Your task to perform on an android device: show emergency info Image 0: 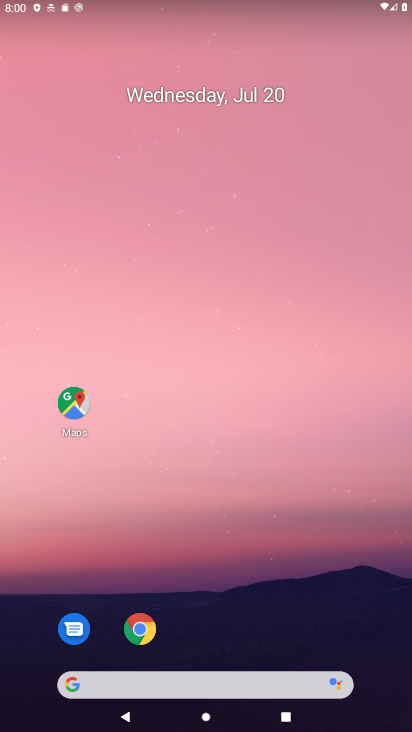
Step 0: drag from (234, 655) to (262, 156)
Your task to perform on an android device: show emergency info Image 1: 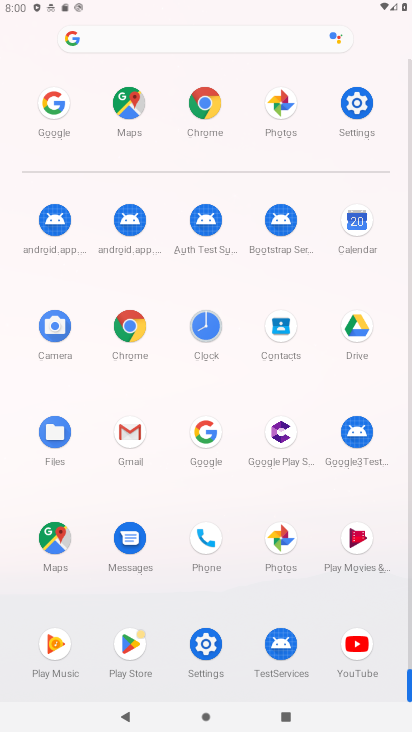
Step 1: click (348, 104)
Your task to perform on an android device: show emergency info Image 2: 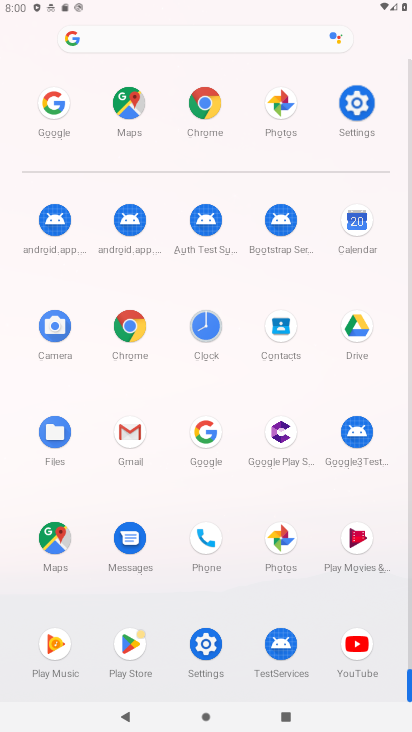
Step 2: click (356, 99)
Your task to perform on an android device: show emergency info Image 3: 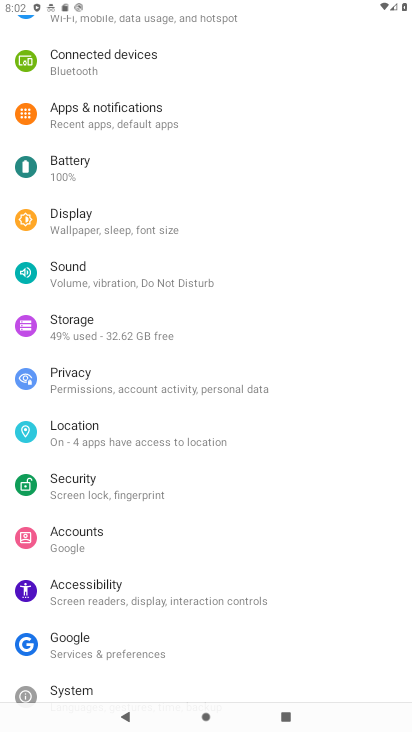
Step 3: drag from (98, 535) to (102, 219)
Your task to perform on an android device: show emergency info Image 4: 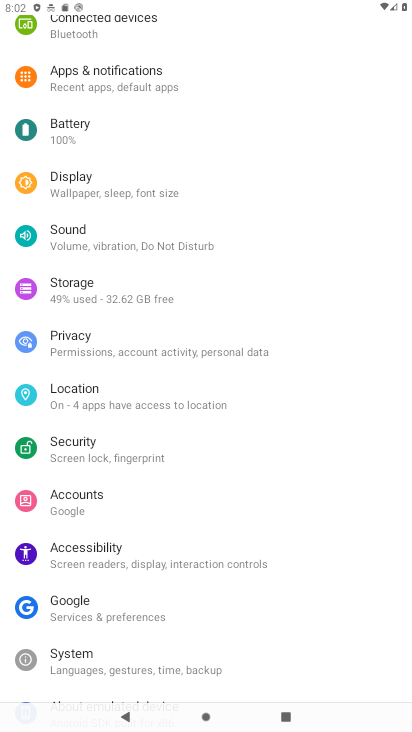
Step 4: drag from (233, 333) to (259, 158)
Your task to perform on an android device: show emergency info Image 5: 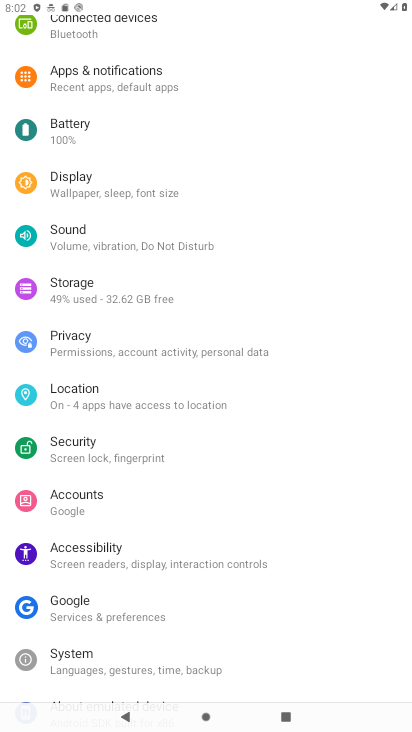
Step 5: drag from (179, 608) to (197, 315)
Your task to perform on an android device: show emergency info Image 6: 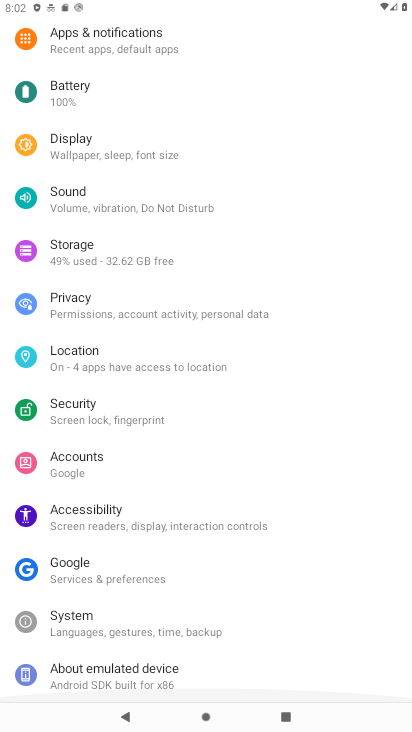
Step 6: drag from (148, 538) to (148, 98)
Your task to perform on an android device: show emergency info Image 7: 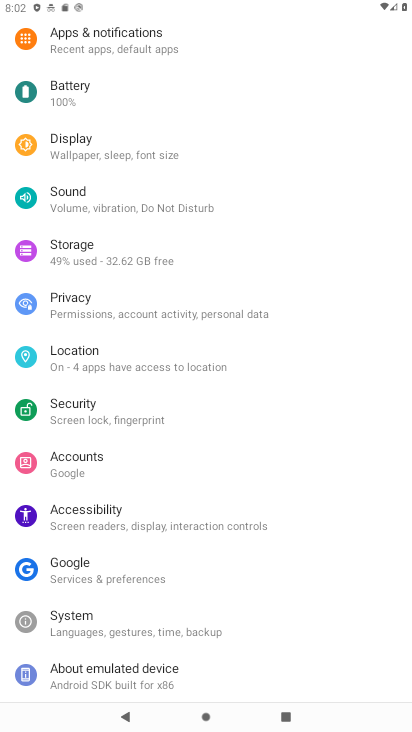
Step 7: drag from (185, 616) to (190, 217)
Your task to perform on an android device: show emergency info Image 8: 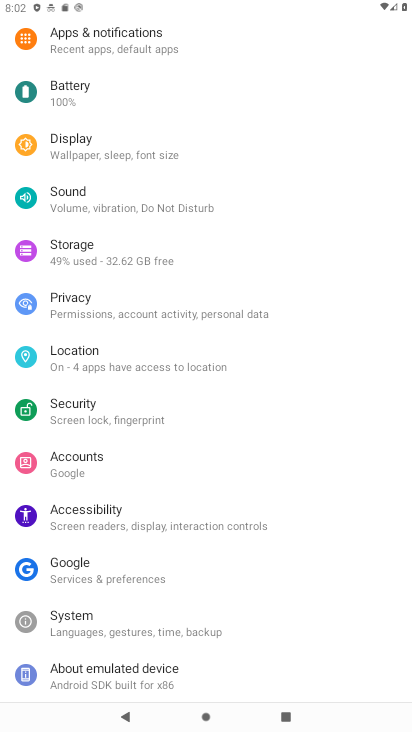
Step 8: click (121, 677)
Your task to perform on an android device: show emergency info Image 9: 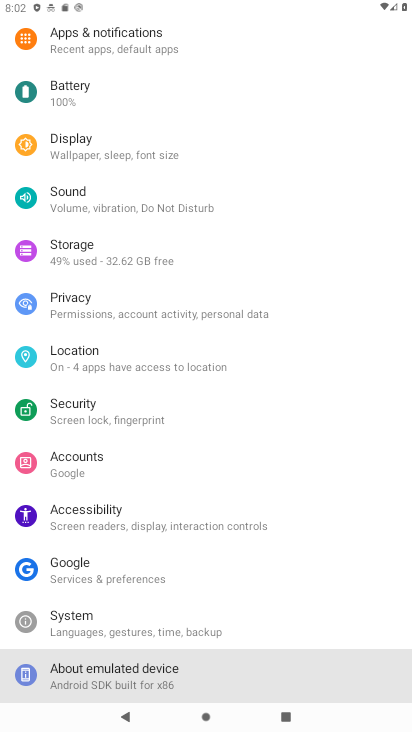
Step 9: click (121, 676)
Your task to perform on an android device: show emergency info Image 10: 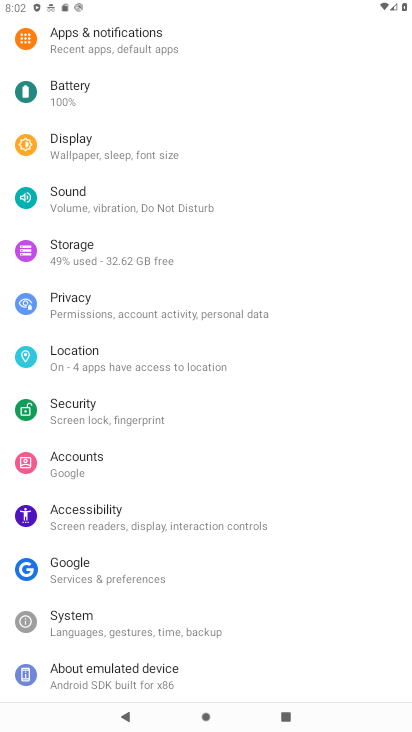
Step 10: click (124, 676)
Your task to perform on an android device: show emergency info Image 11: 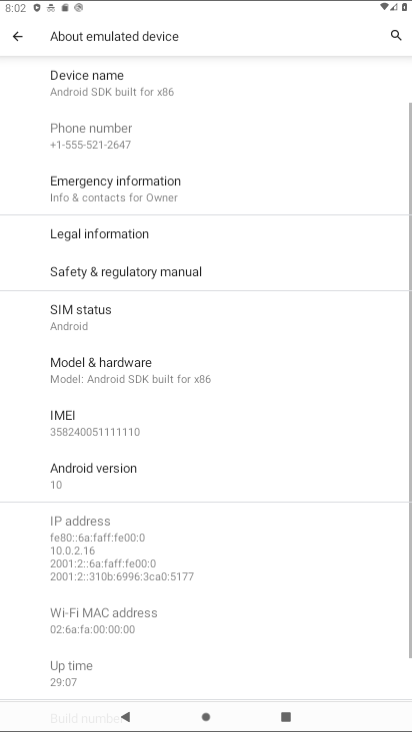
Step 11: click (120, 676)
Your task to perform on an android device: show emergency info Image 12: 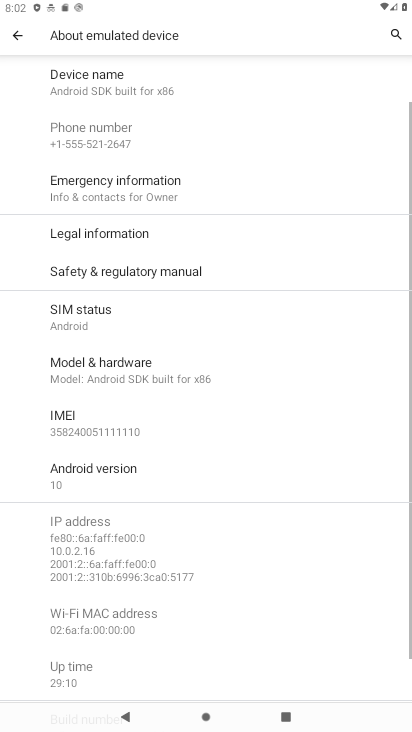
Step 12: task complete